Your task to perform on an android device: open app "Nova Launcher" (install if not already installed) Image 0: 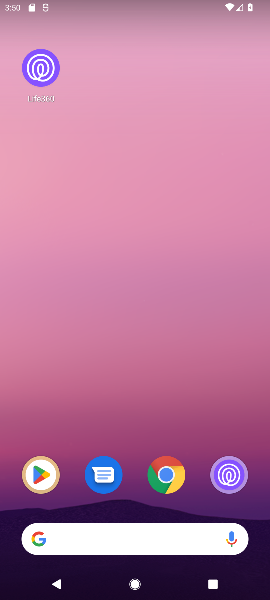
Step 0: drag from (130, 428) to (143, 28)
Your task to perform on an android device: open app "Nova Launcher" (install if not already installed) Image 1: 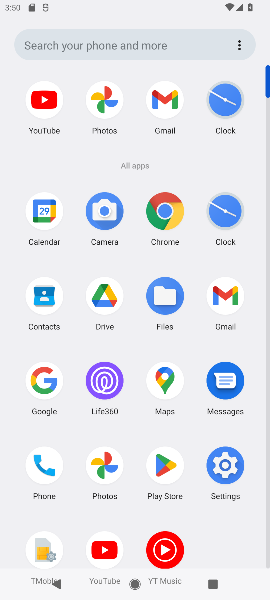
Step 1: click (165, 468)
Your task to perform on an android device: open app "Nova Launcher" (install if not already installed) Image 2: 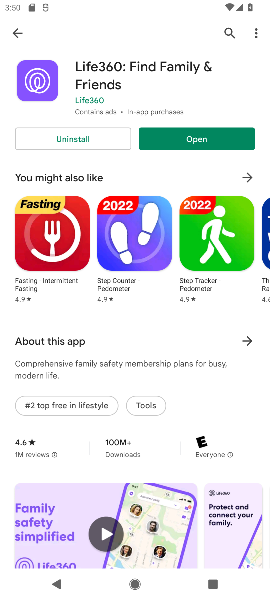
Step 2: click (16, 34)
Your task to perform on an android device: open app "Nova Launcher" (install if not already installed) Image 3: 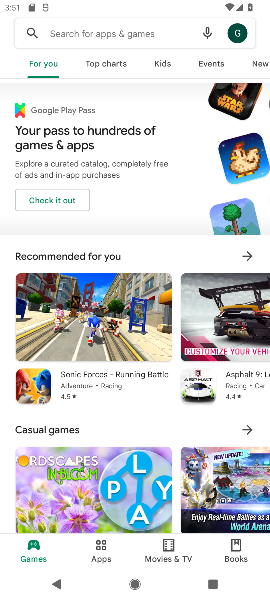
Step 3: click (84, 35)
Your task to perform on an android device: open app "Nova Launcher" (install if not already installed) Image 4: 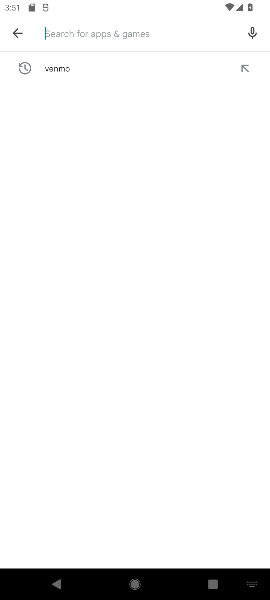
Step 4: type "Nova Launcher"
Your task to perform on an android device: open app "Nova Launcher" (install if not already installed) Image 5: 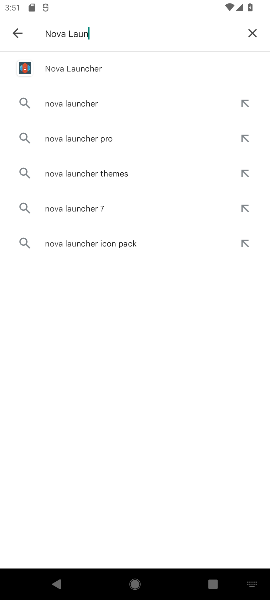
Step 5: type ""
Your task to perform on an android device: open app "Nova Launcher" (install if not already installed) Image 6: 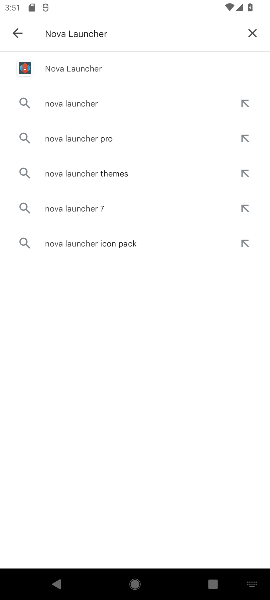
Step 6: click (64, 71)
Your task to perform on an android device: open app "Nova Launcher" (install if not already installed) Image 7: 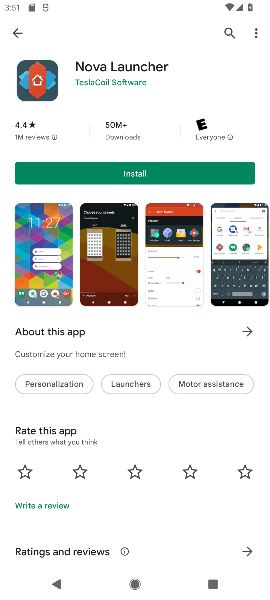
Step 7: click (67, 165)
Your task to perform on an android device: open app "Nova Launcher" (install if not already installed) Image 8: 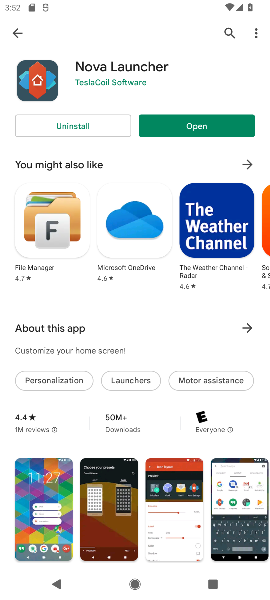
Step 8: click (207, 118)
Your task to perform on an android device: open app "Nova Launcher" (install if not already installed) Image 9: 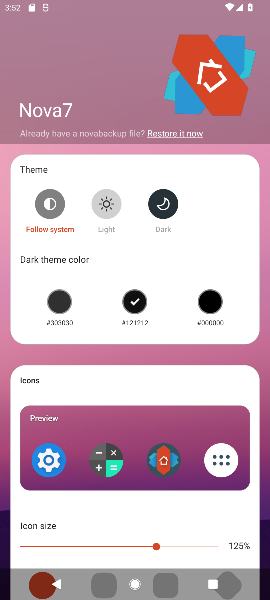
Step 9: task complete